Your task to perform on an android device: Do I have any events tomorrow? Image 0: 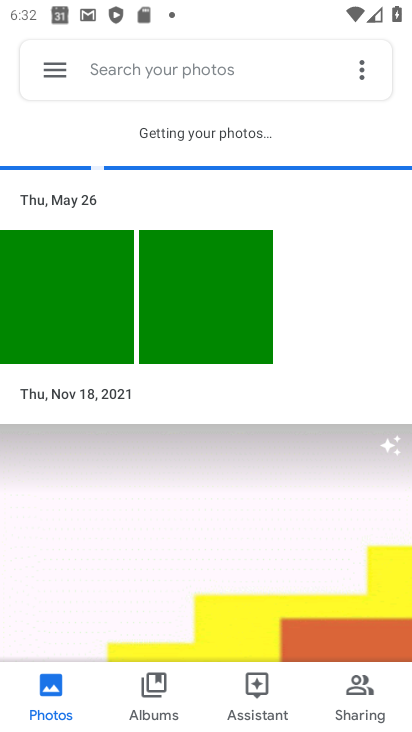
Step 0: press home button
Your task to perform on an android device: Do I have any events tomorrow? Image 1: 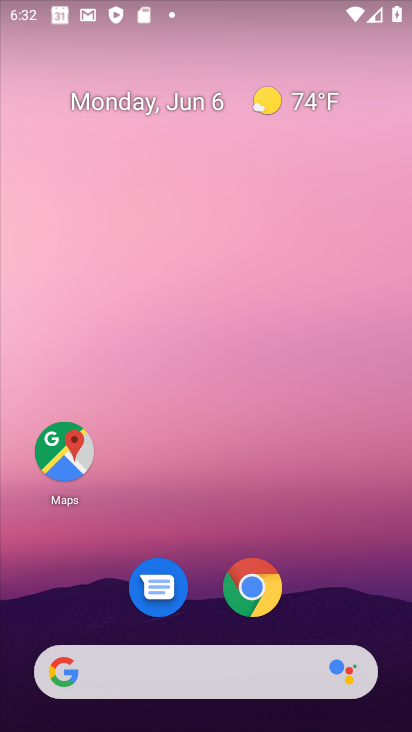
Step 1: drag from (381, 665) to (304, 4)
Your task to perform on an android device: Do I have any events tomorrow? Image 2: 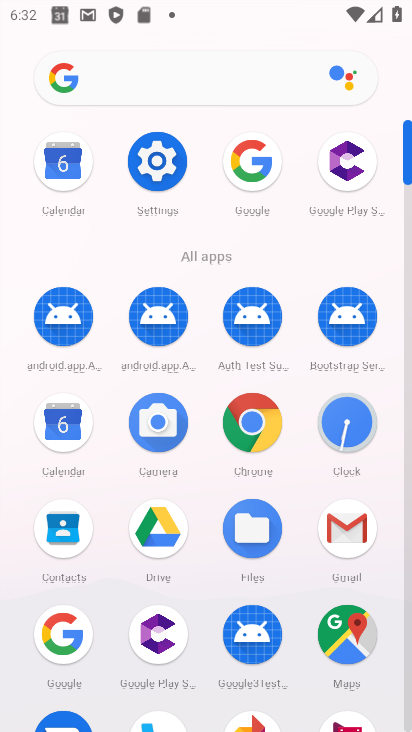
Step 2: click (61, 437)
Your task to perform on an android device: Do I have any events tomorrow? Image 3: 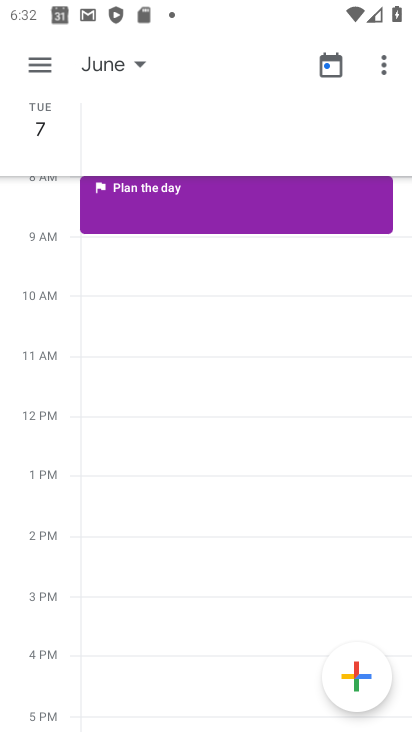
Step 3: click (116, 72)
Your task to perform on an android device: Do I have any events tomorrow? Image 4: 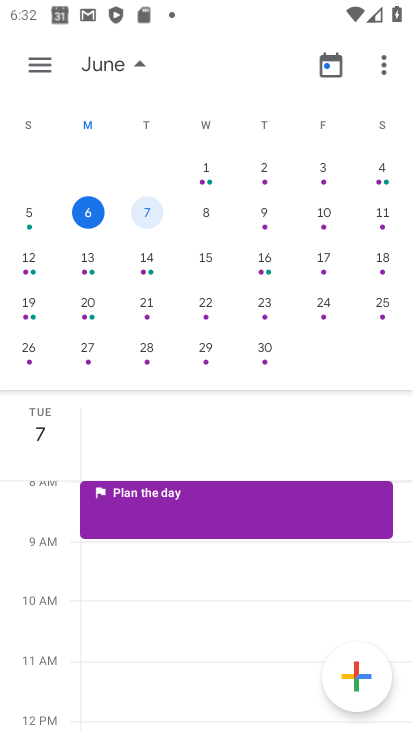
Step 4: click (207, 208)
Your task to perform on an android device: Do I have any events tomorrow? Image 5: 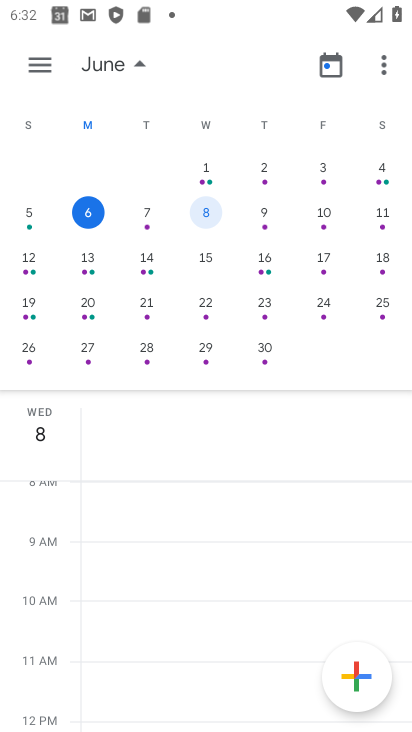
Step 5: click (32, 52)
Your task to perform on an android device: Do I have any events tomorrow? Image 6: 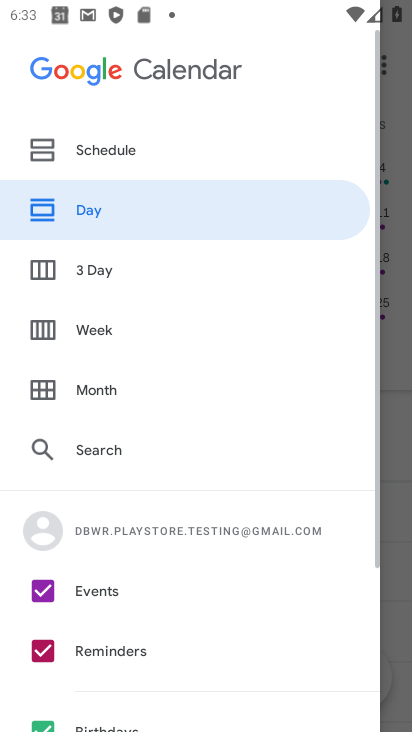
Step 6: task complete